Your task to perform on an android device: star an email in the gmail app Image 0: 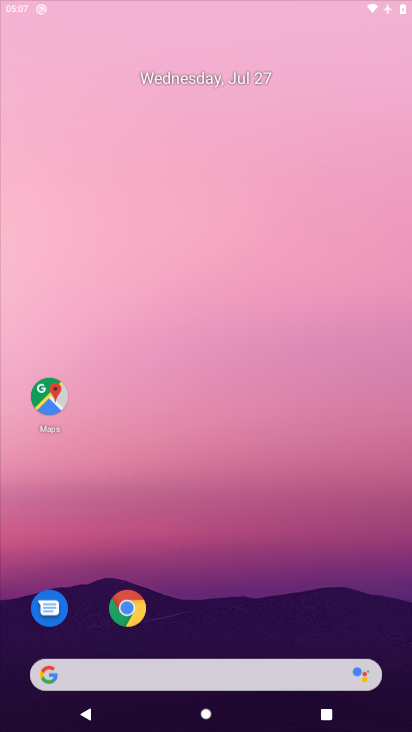
Step 0: press home button
Your task to perform on an android device: star an email in the gmail app Image 1: 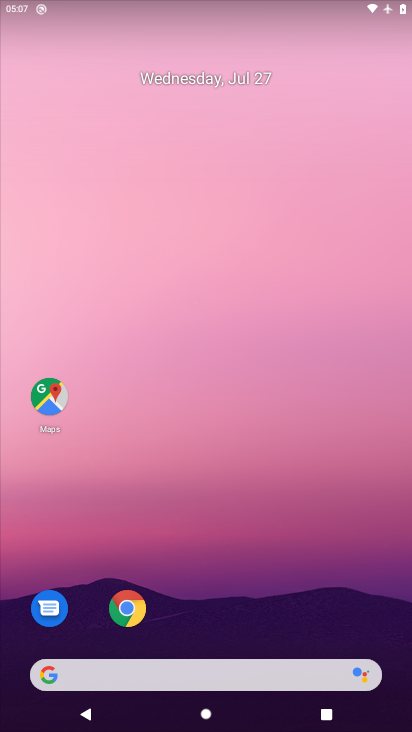
Step 1: drag from (229, 626) to (7, 37)
Your task to perform on an android device: star an email in the gmail app Image 2: 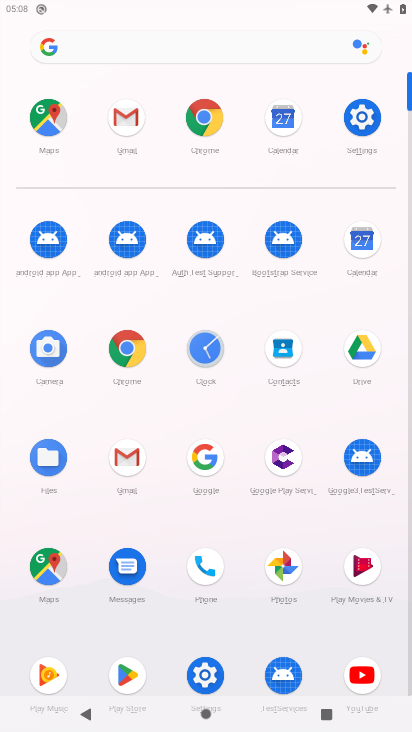
Step 2: click (123, 120)
Your task to perform on an android device: star an email in the gmail app Image 3: 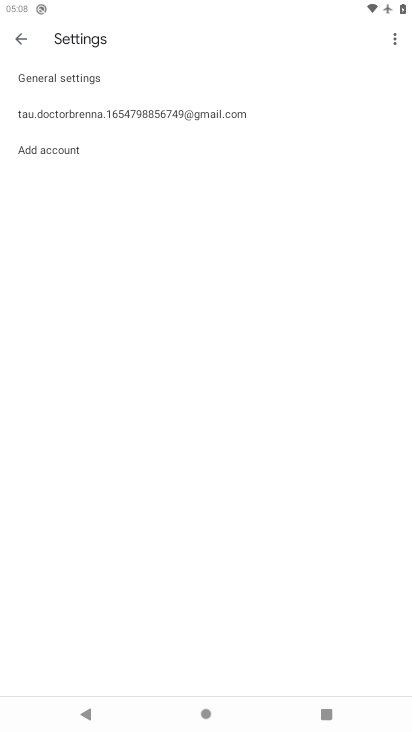
Step 3: click (18, 46)
Your task to perform on an android device: star an email in the gmail app Image 4: 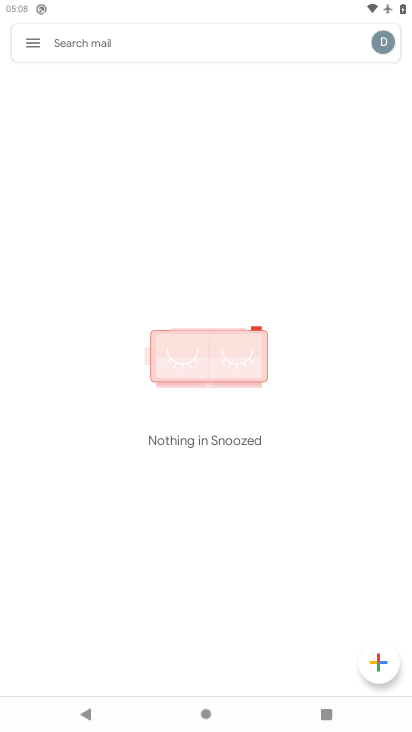
Step 4: click (30, 42)
Your task to perform on an android device: star an email in the gmail app Image 5: 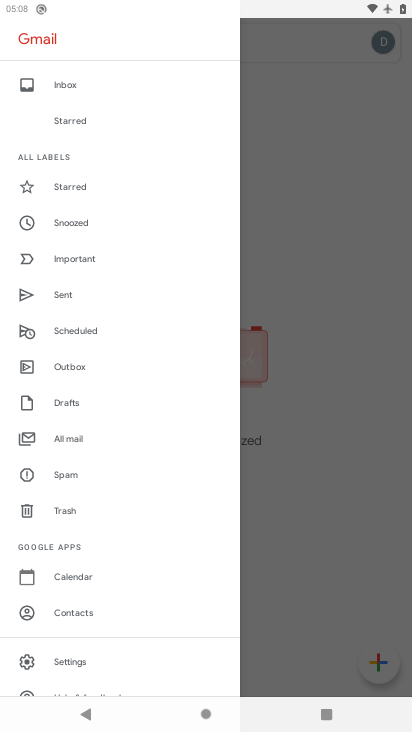
Step 5: click (69, 439)
Your task to perform on an android device: star an email in the gmail app Image 6: 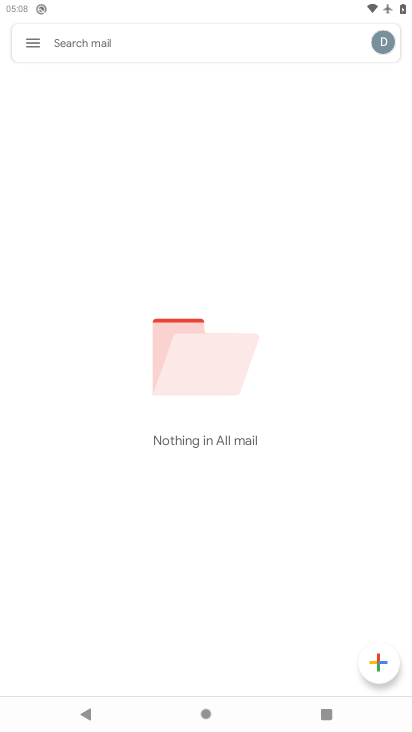
Step 6: task complete